Your task to perform on an android device: Check the weather Image 0: 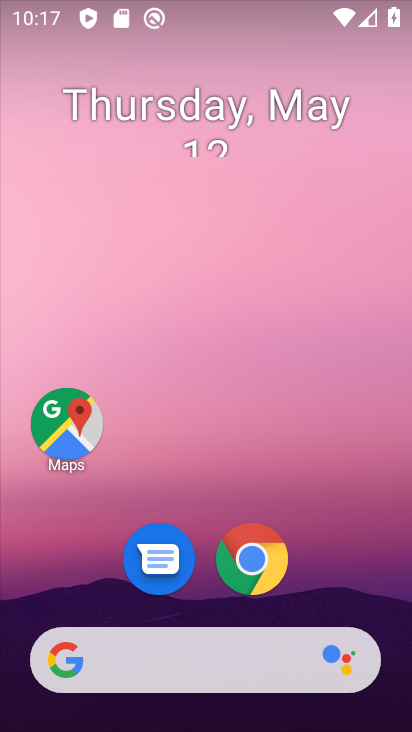
Step 0: drag from (194, 600) to (209, 127)
Your task to perform on an android device: Check the weather Image 1: 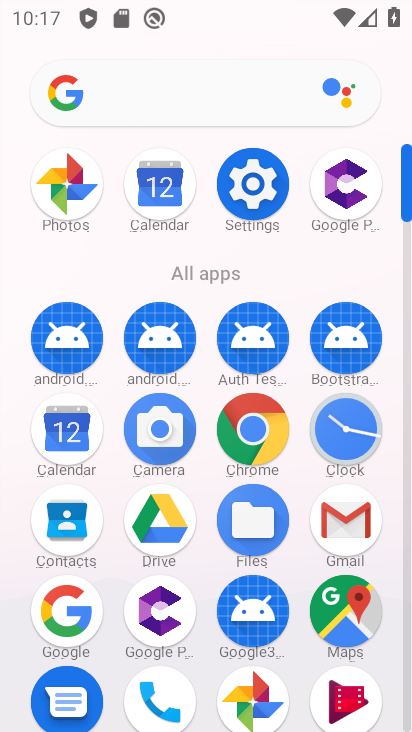
Step 1: click (82, 607)
Your task to perform on an android device: Check the weather Image 2: 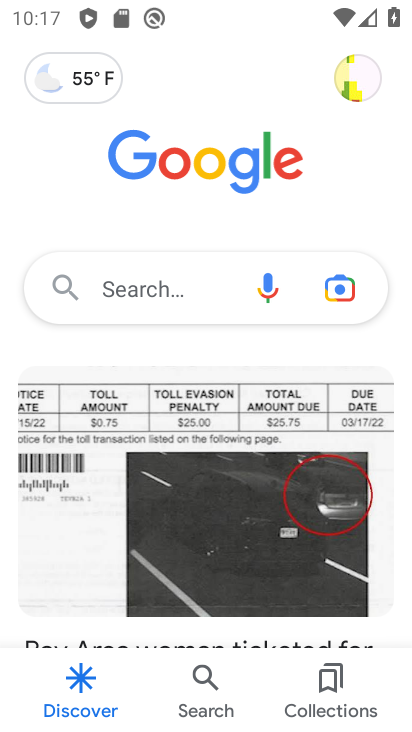
Step 2: click (113, 280)
Your task to perform on an android device: Check the weather Image 3: 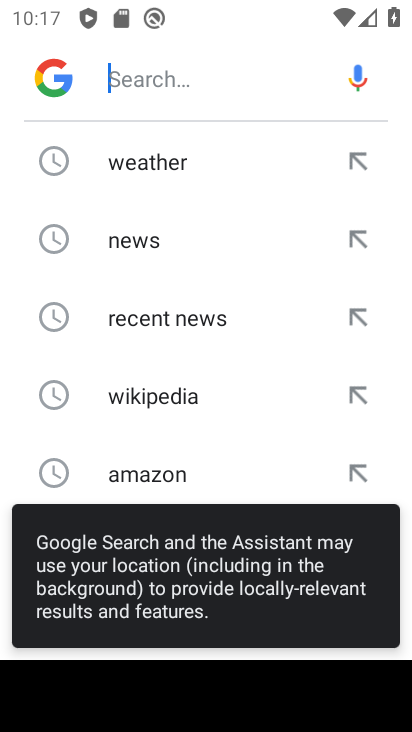
Step 3: click (131, 174)
Your task to perform on an android device: Check the weather Image 4: 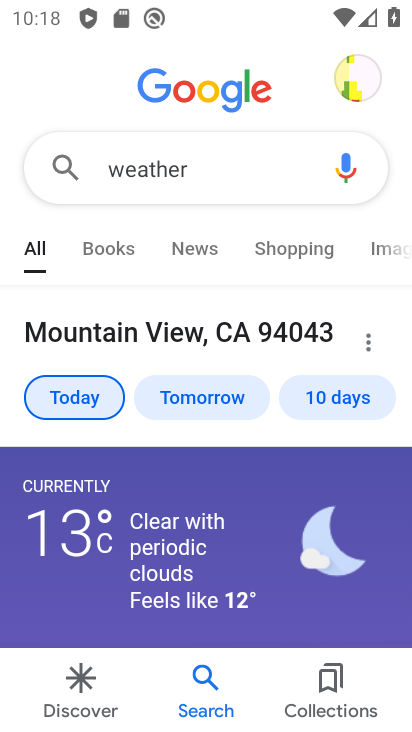
Step 4: task complete